Your task to perform on an android device: Go to accessibility settings Image 0: 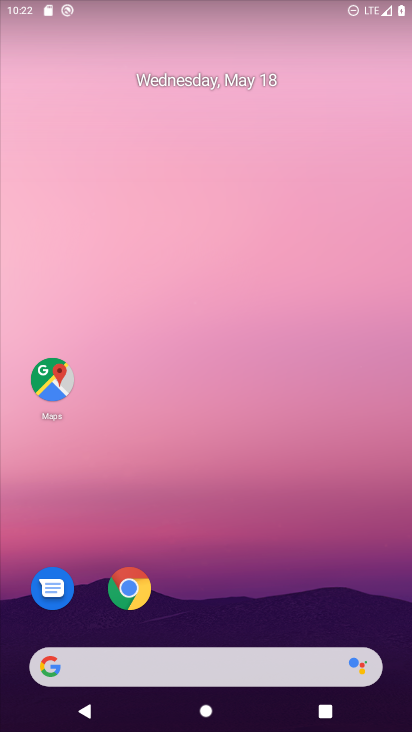
Step 0: drag from (307, 626) to (305, 0)
Your task to perform on an android device: Go to accessibility settings Image 1: 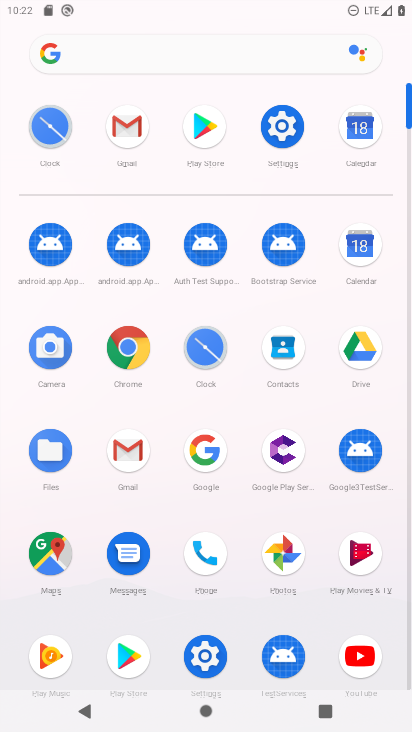
Step 1: click (284, 112)
Your task to perform on an android device: Go to accessibility settings Image 2: 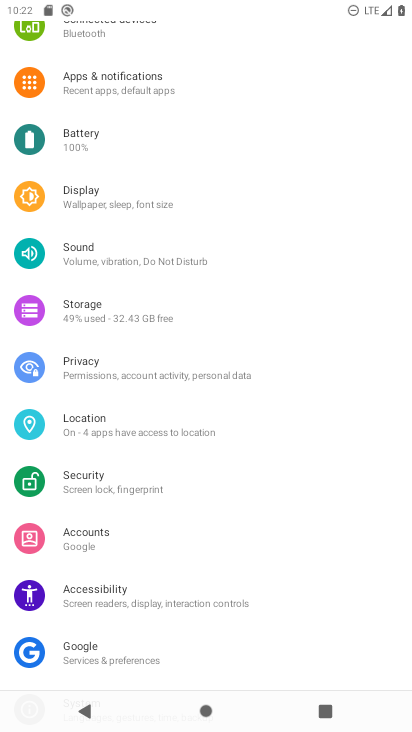
Step 2: click (100, 587)
Your task to perform on an android device: Go to accessibility settings Image 3: 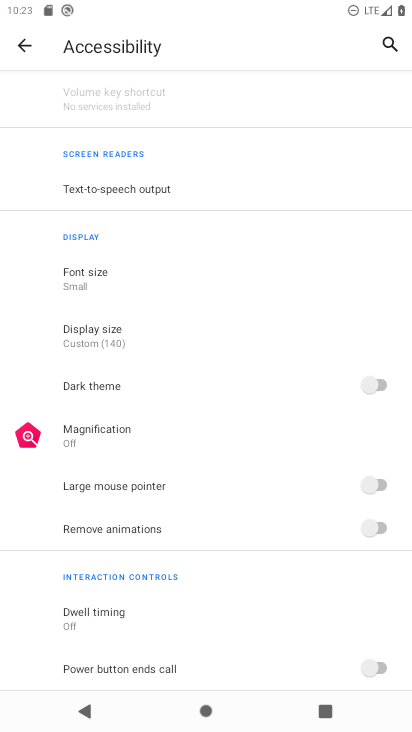
Step 3: task complete